Your task to perform on an android device: Search for usb-a on target.com, select the first entry, and add it to the cart. Image 0: 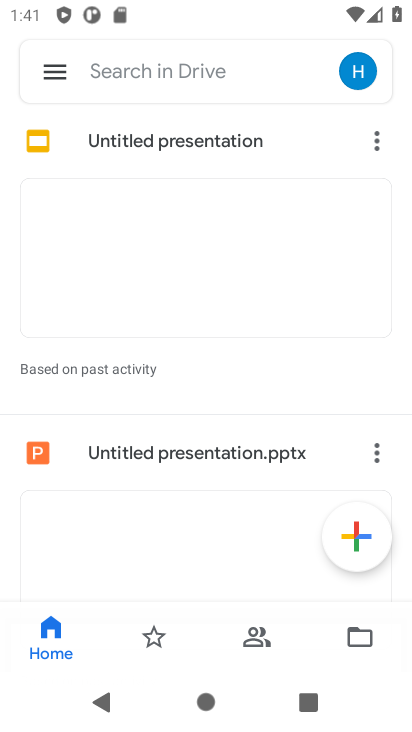
Step 0: press home button
Your task to perform on an android device: Search for usb-a on target.com, select the first entry, and add it to the cart. Image 1: 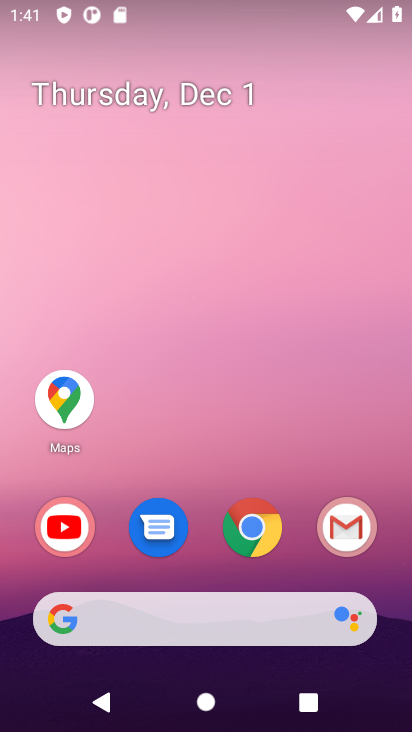
Step 1: click (257, 530)
Your task to perform on an android device: Search for usb-a on target.com, select the first entry, and add it to the cart. Image 2: 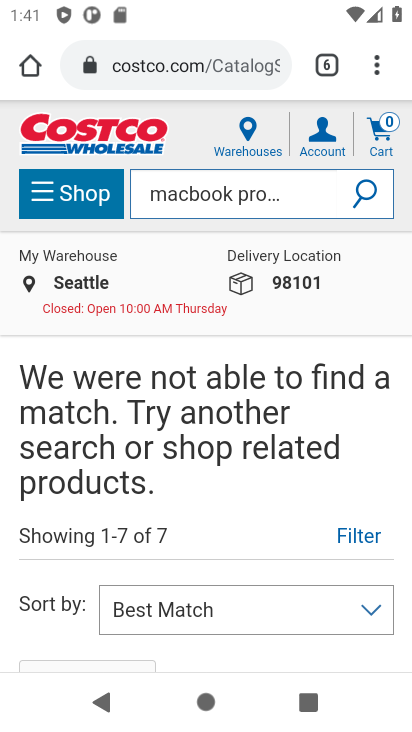
Step 2: click (195, 72)
Your task to perform on an android device: Search for usb-a on target.com, select the first entry, and add it to the cart. Image 3: 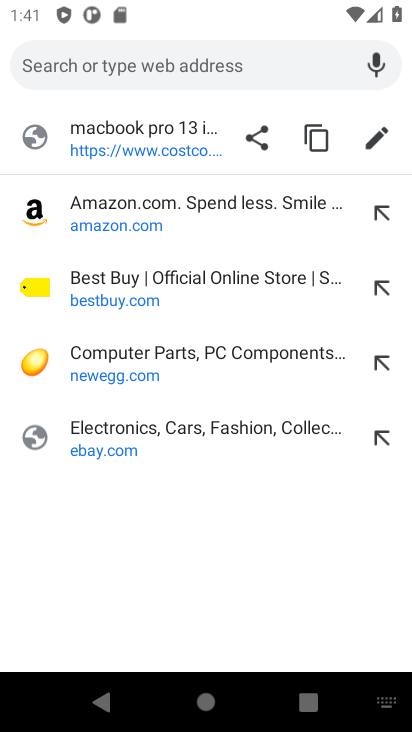
Step 3: type "target.com"
Your task to perform on an android device: Search for usb-a on target.com, select the first entry, and add it to the cart. Image 4: 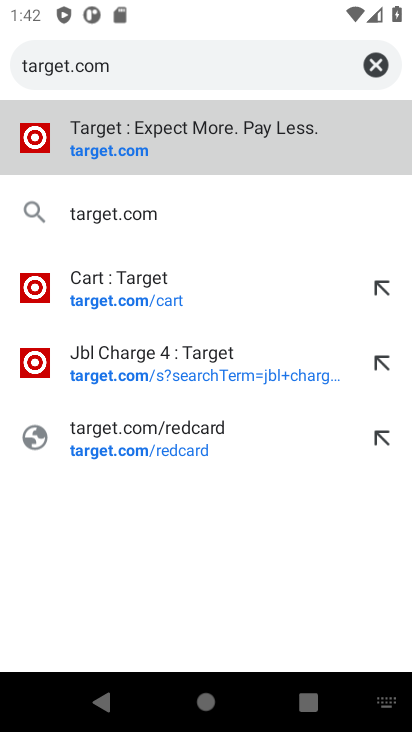
Step 4: click (104, 148)
Your task to perform on an android device: Search for usb-a on target.com, select the first entry, and add it to the cart. Image 5: 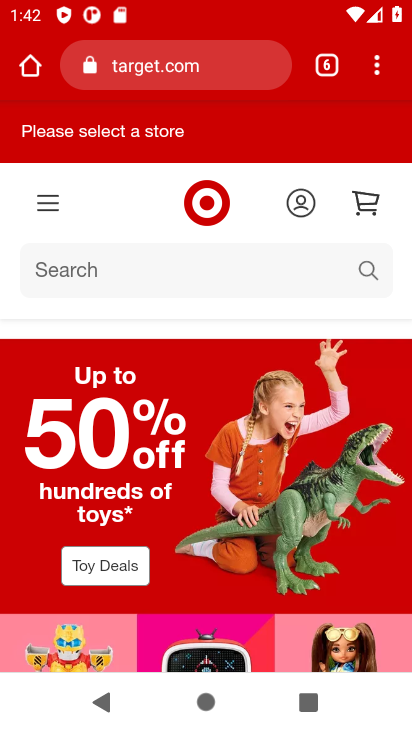
Step 5: click (74, 268)
Your task to perform on an android device: Search for usb-a on target.com, select the first entry, and add it to the cart. Image 6: 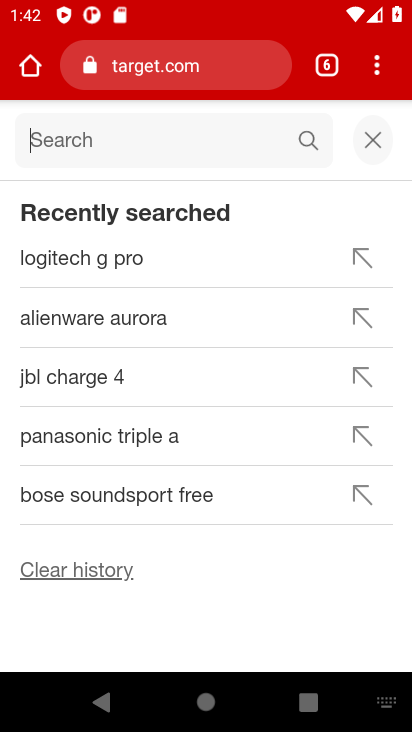
Step 6: type "usb-a"
Your task to perform on an android device: Search for usb-a on target.com, select the first entry, and add it to the cart. Image 7: 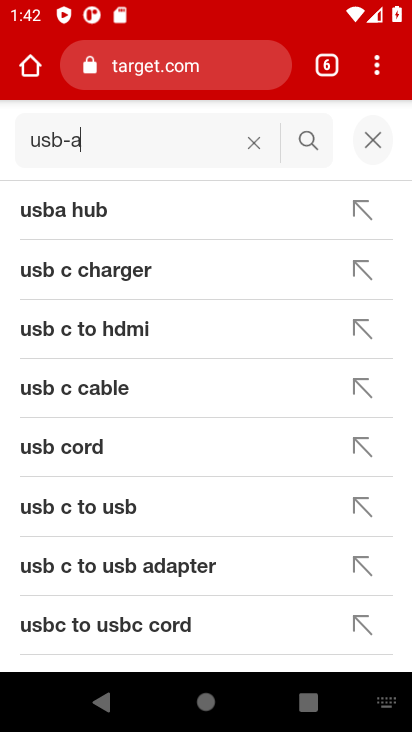
Step 7: click (305, 141)
Your task to perform on an android device: Search for usb-a on target.com, select the first entry, and add it to the cart. Image 8: 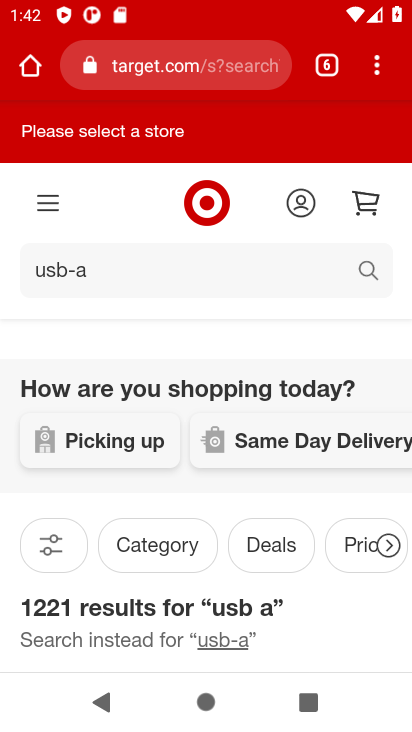
Step 8: drag from (235, 484) to (195, 164)
Your task to perform on an android device: Search for usb-a on target.com, select the first entry, and add it to the cart. Image 9: 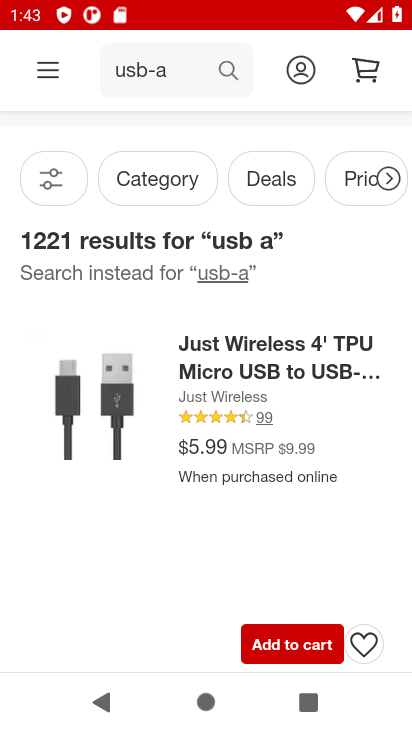
Step 9: click (285, 369)
Your task to perform on an android device: Search for usb-a on target.com, select the first entry, and add it to the cart. Image 10: 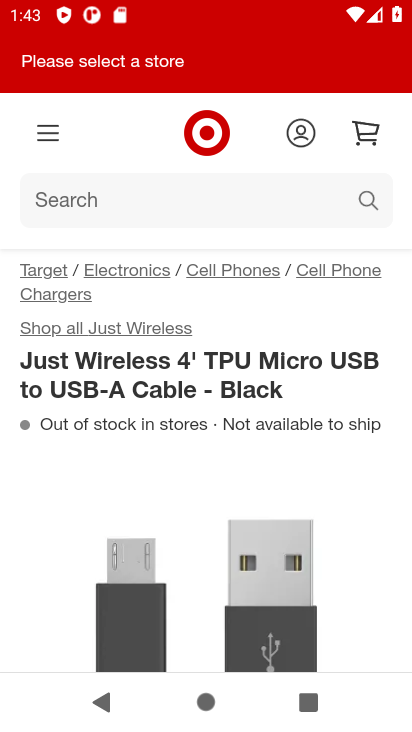
Step 10: drag from (199, 314) to (189, 144)
Your task to perform on an android device: Search for usb-a on target.com, select the first entry, and add it to the cart. Image 11: 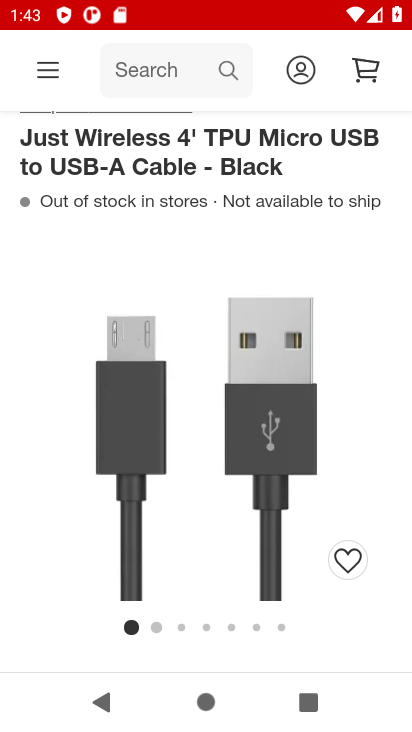
Step 11: drag from (222, 538) to (208, 166)
Your task to perform on an android device: Search for usb-a on target.com, select the first entry, and add it to the cart. Image 12: 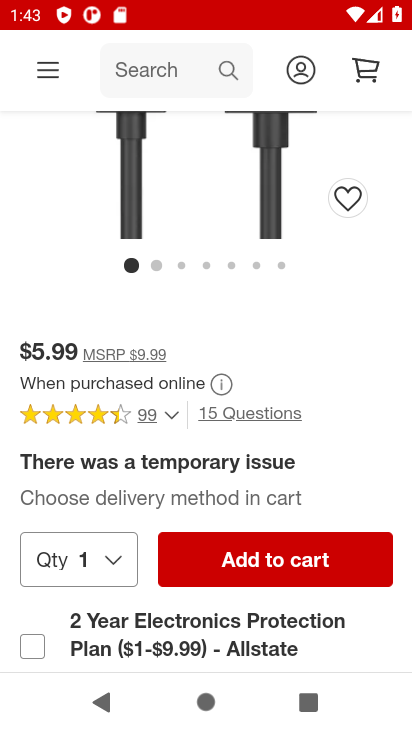
Step 12: click (260, 554)
Your task to perform on an android device: Search for usb-a on target.com, select the first entry, and add it to the cart. Image 13: 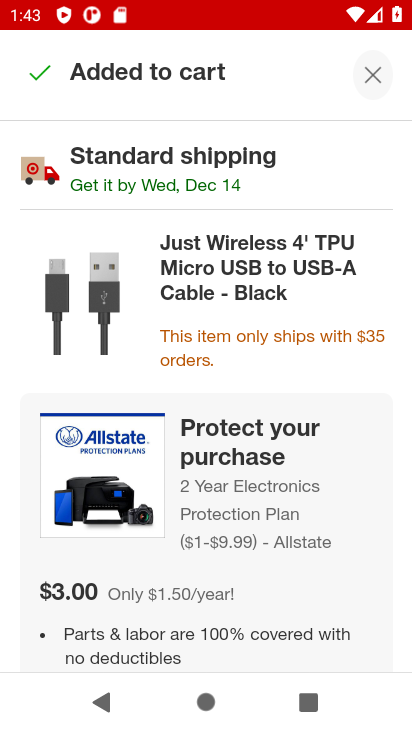
Step 13: task complete